Your task to perform on an android device: open app "ColorNote Notepad Notes" (install if not already installed), go to login, and select forgot password Image 0: 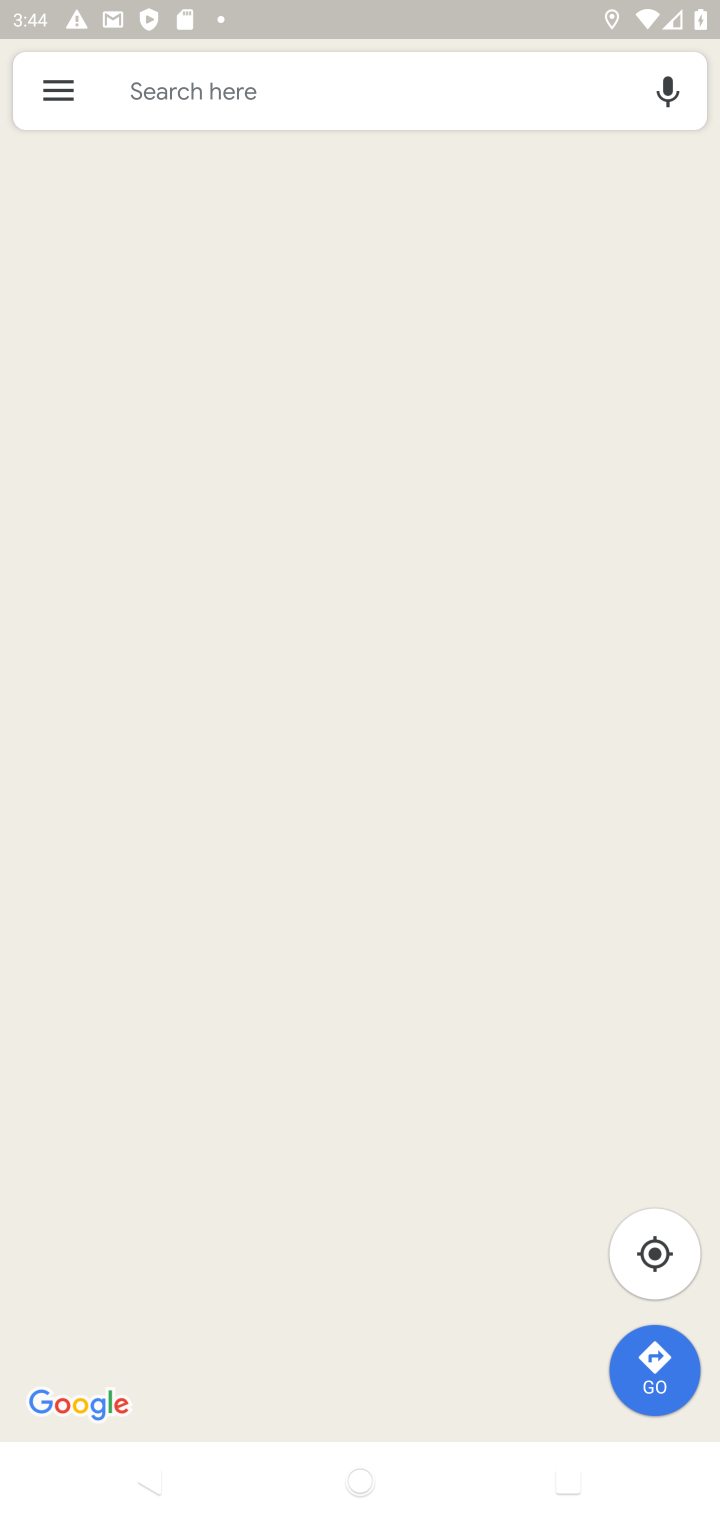
Step 0: press home button
Your task to perform on an android device: open app "ColorNote Notepad Notes" (install if not already installed), go to login, and select forgot password Image 1: 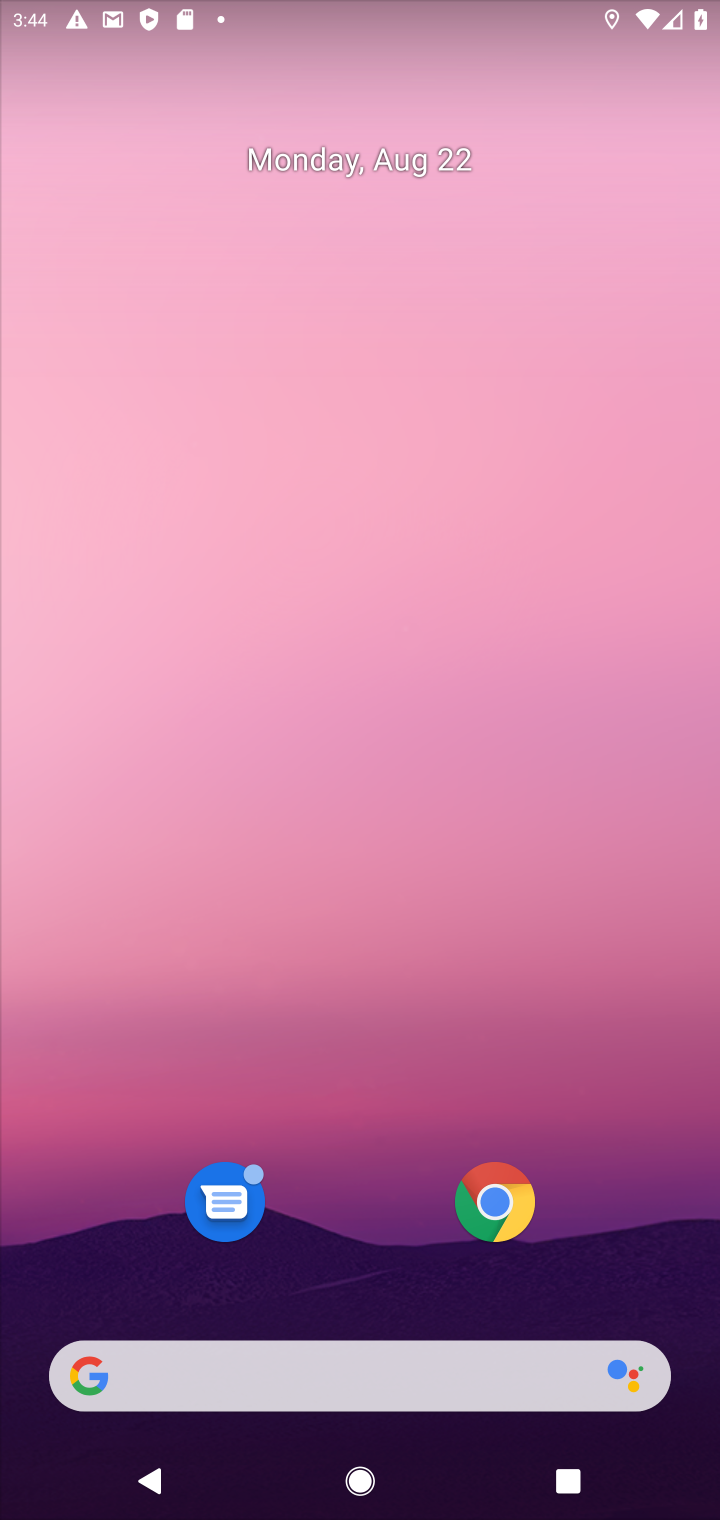
Step 1: drag from (383, 1351) to (312, 785)
Your task to perform on an android device: open app "ColorNote Notepad Notes" (install if not already installed), go to login, and select forgot password Image 2: 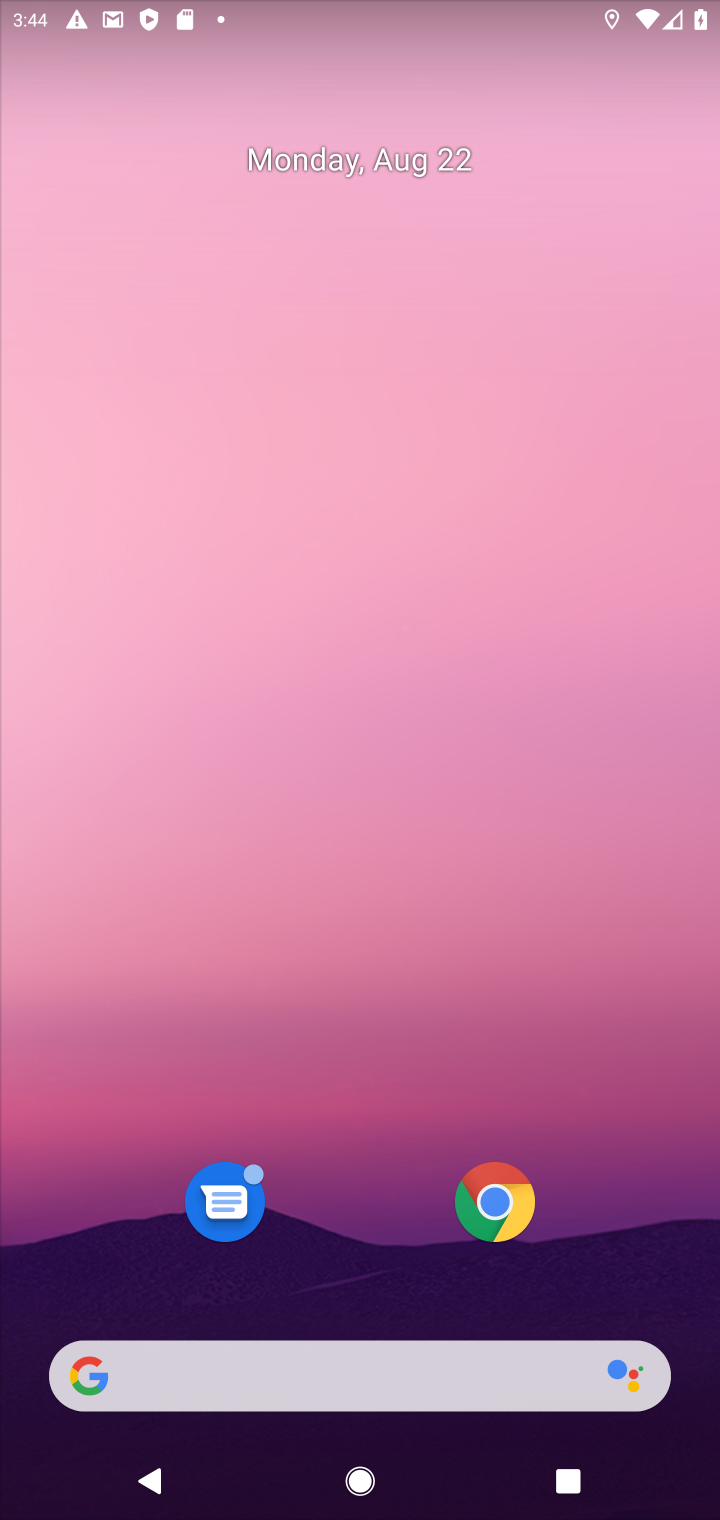
Step 2: drag from (234, 1088) to (228, 567)
Your task to perform on an android device: open app "ColorNote Notepad Notes" (install if not already installed), go to login, and select forgot password Image 3: 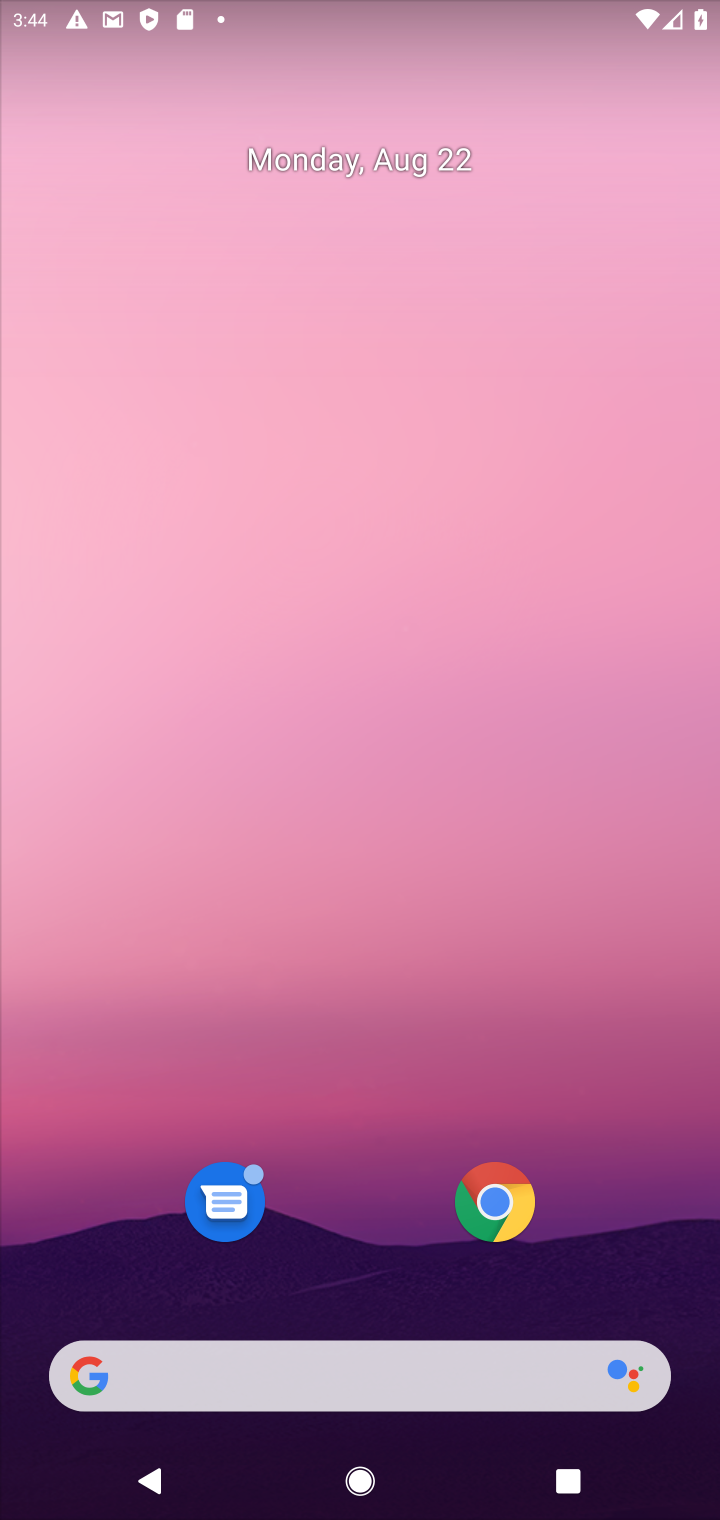
Step 3: drag from (375, 1306) to (496, 33)
Your task to perform on an android device: open app "ColorNote Notepad Notes" (install if not already installed), go to login, and select forgot password Image 4: 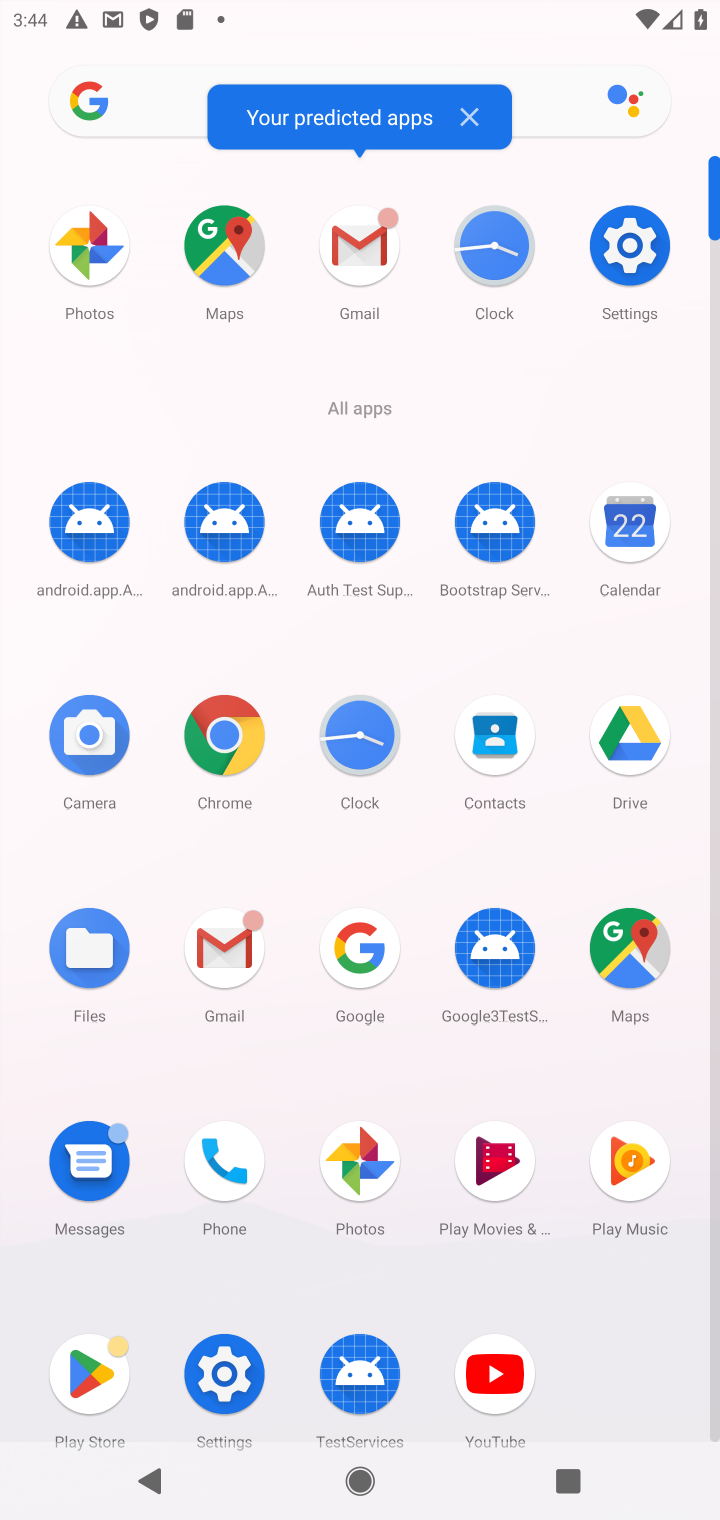
Step 4: click (82, 1394)
Your task to perform on an android device: open app "ColorNote Notepad Notes" (install if not already installed), go to login, and select forgot password Image 5: 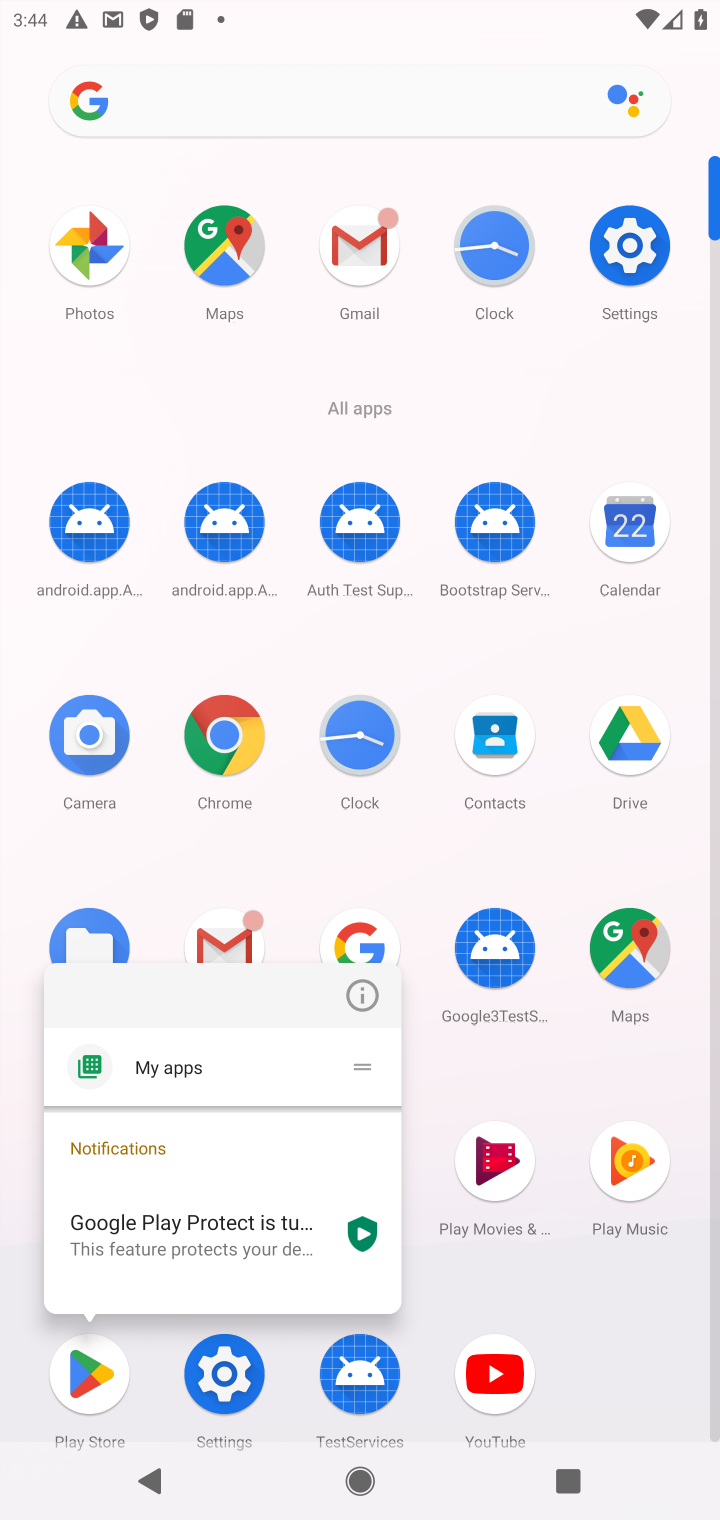
Step 5: click (80, 1392)
Your task to perform on an android device: open app "ColorNote Notepad Notes" (install if not already installed), go to login, and select forgot password Image 6: 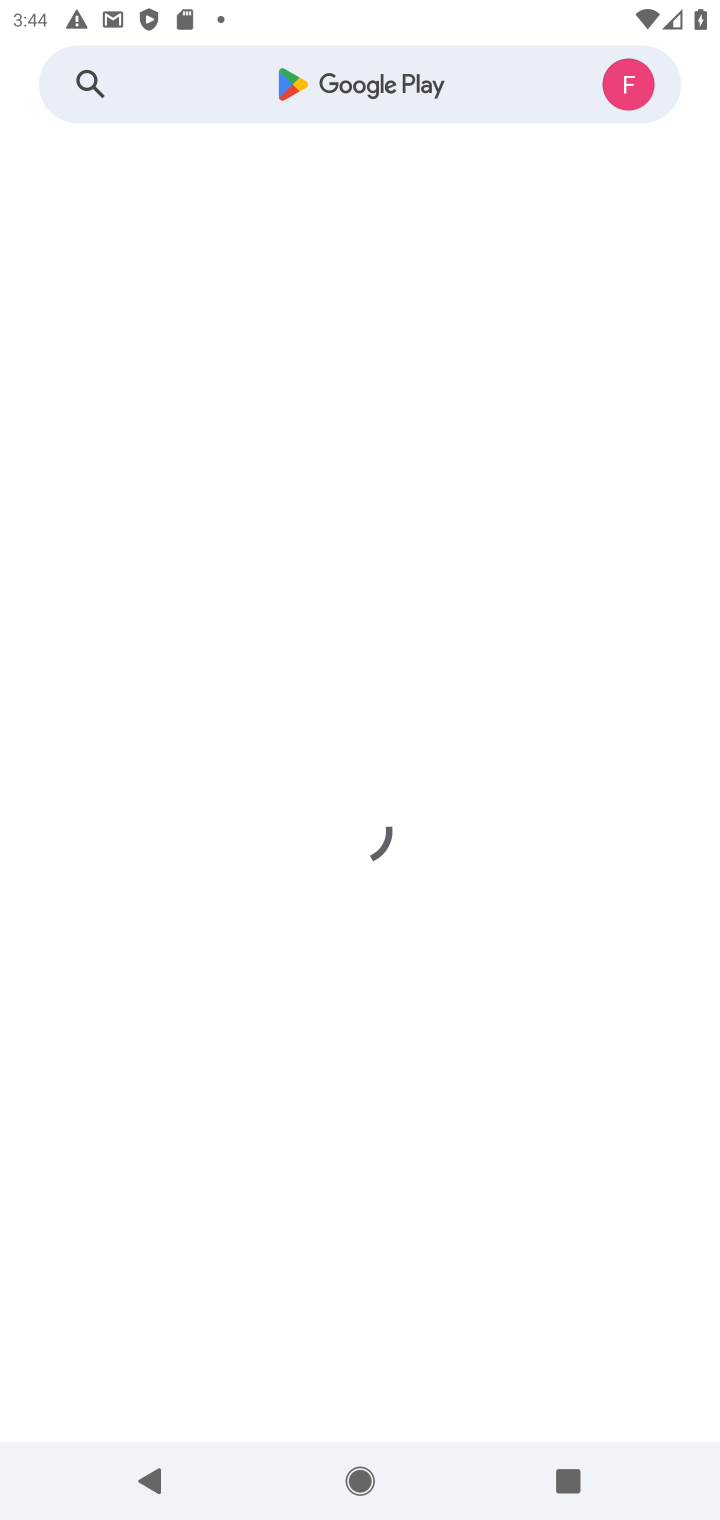
Step 6: click (251, 96)
Your task to perform on an android device: open app "ColorNote Notepad Notes" (install if not already installed), go to login, and select forgot password Image 7: 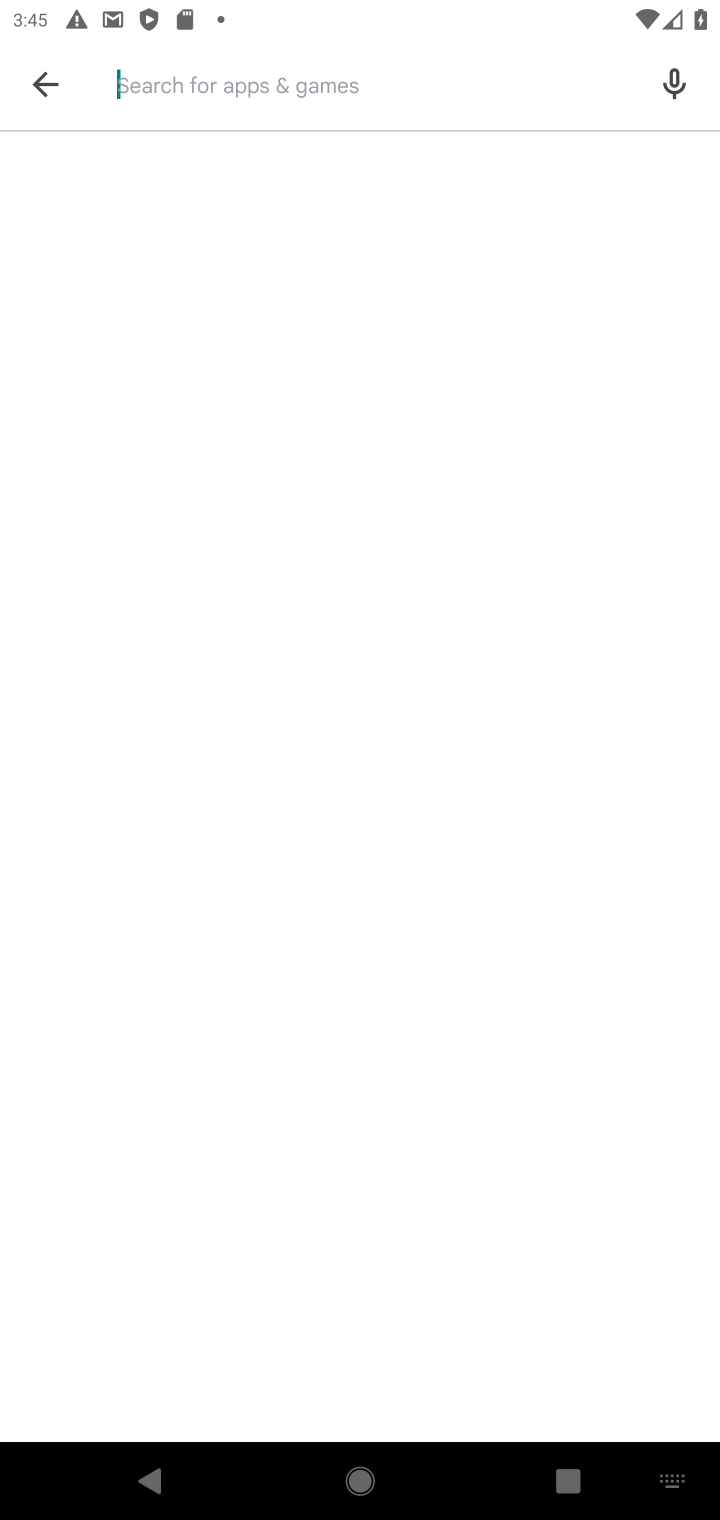
Step 7: type "colornote notepad"
Your task to perform on an android device: open app "ColorNote Notepad Notes" (install if not already installed), go to login, and select forgot password Image 8: 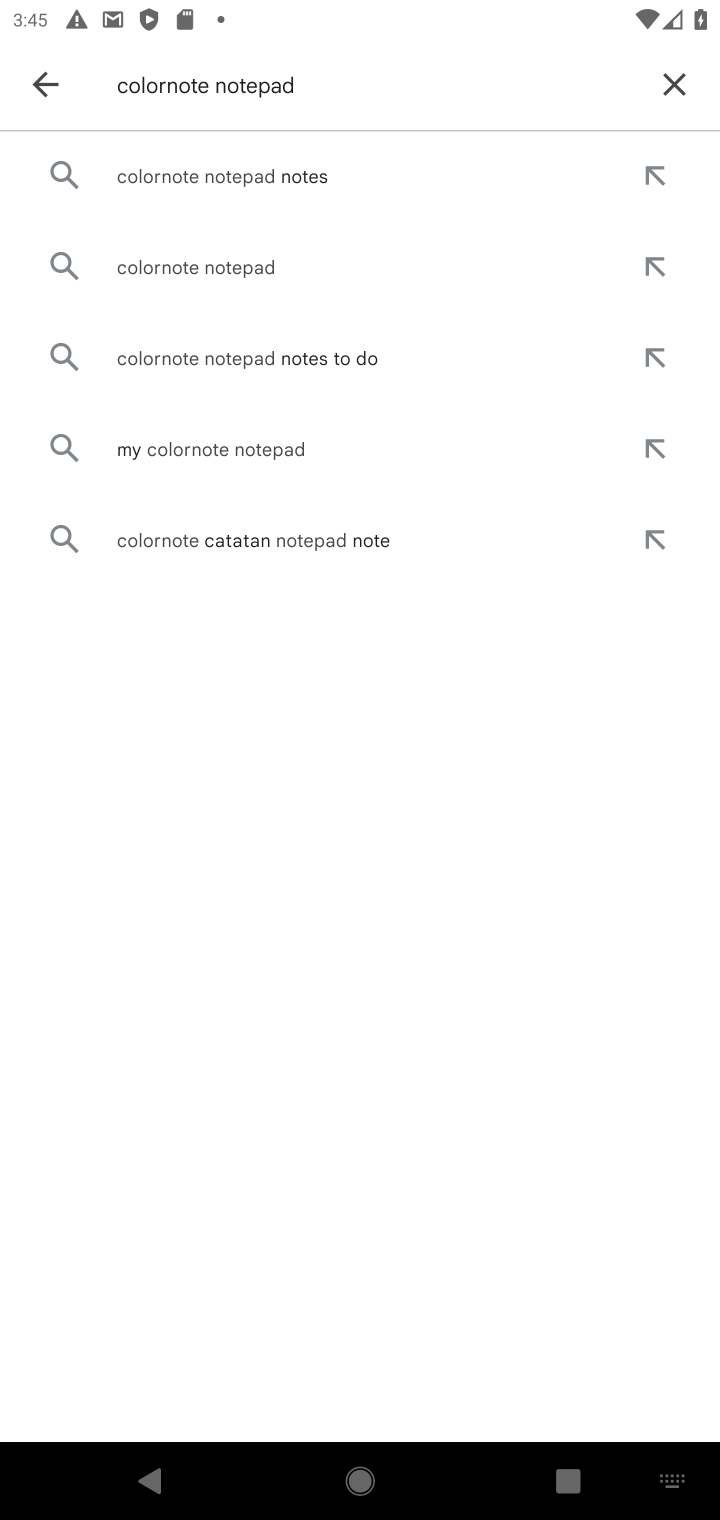
Step 8: click (208, 193)
Your task to perform on an android device: open app "ColorNote Notepad Notes" (install if not already installed), go to login, and select forgot password Image 9: 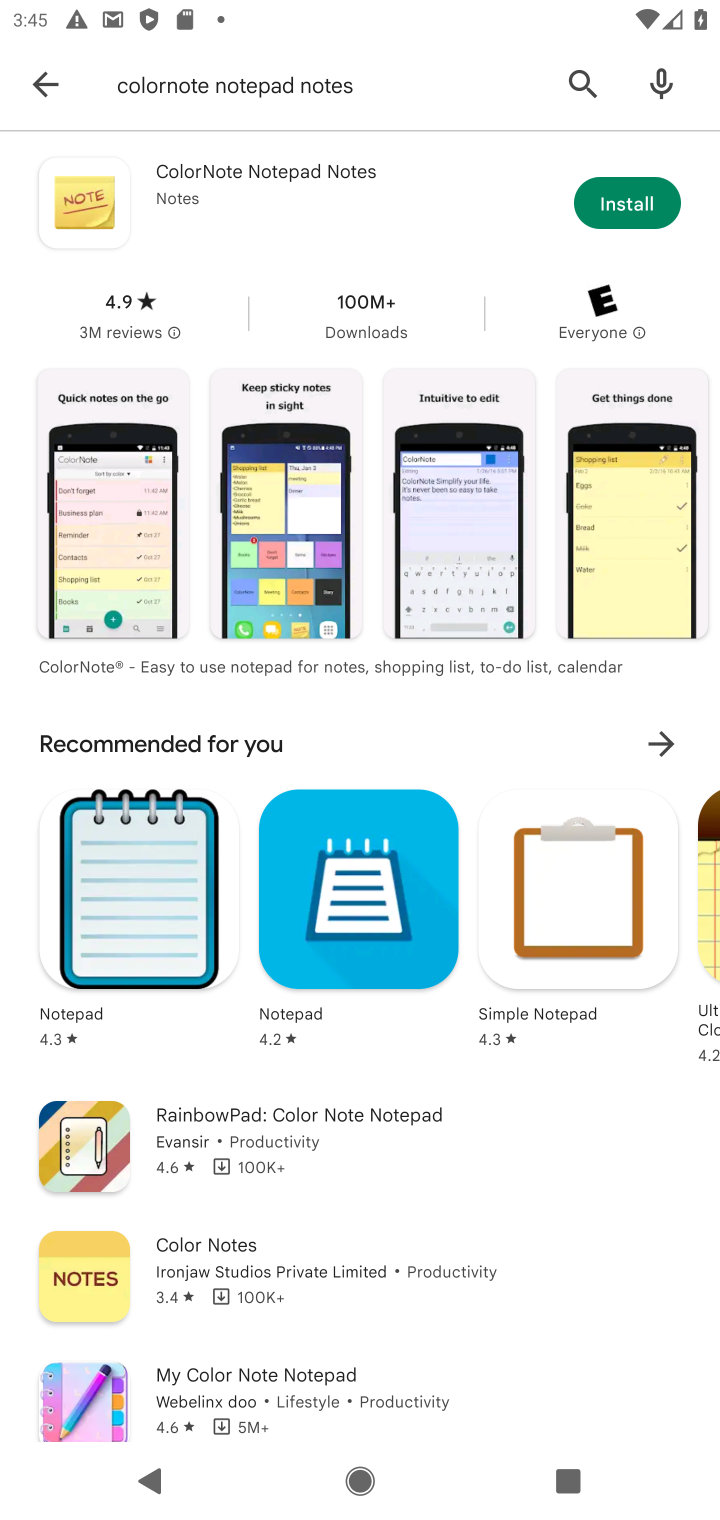
Step 9: click (636, 221)
Your task to perform on an android device: open app "ColorNote Notepad Notes" (install if not already installed), go to login, and select forgot password Image 10: 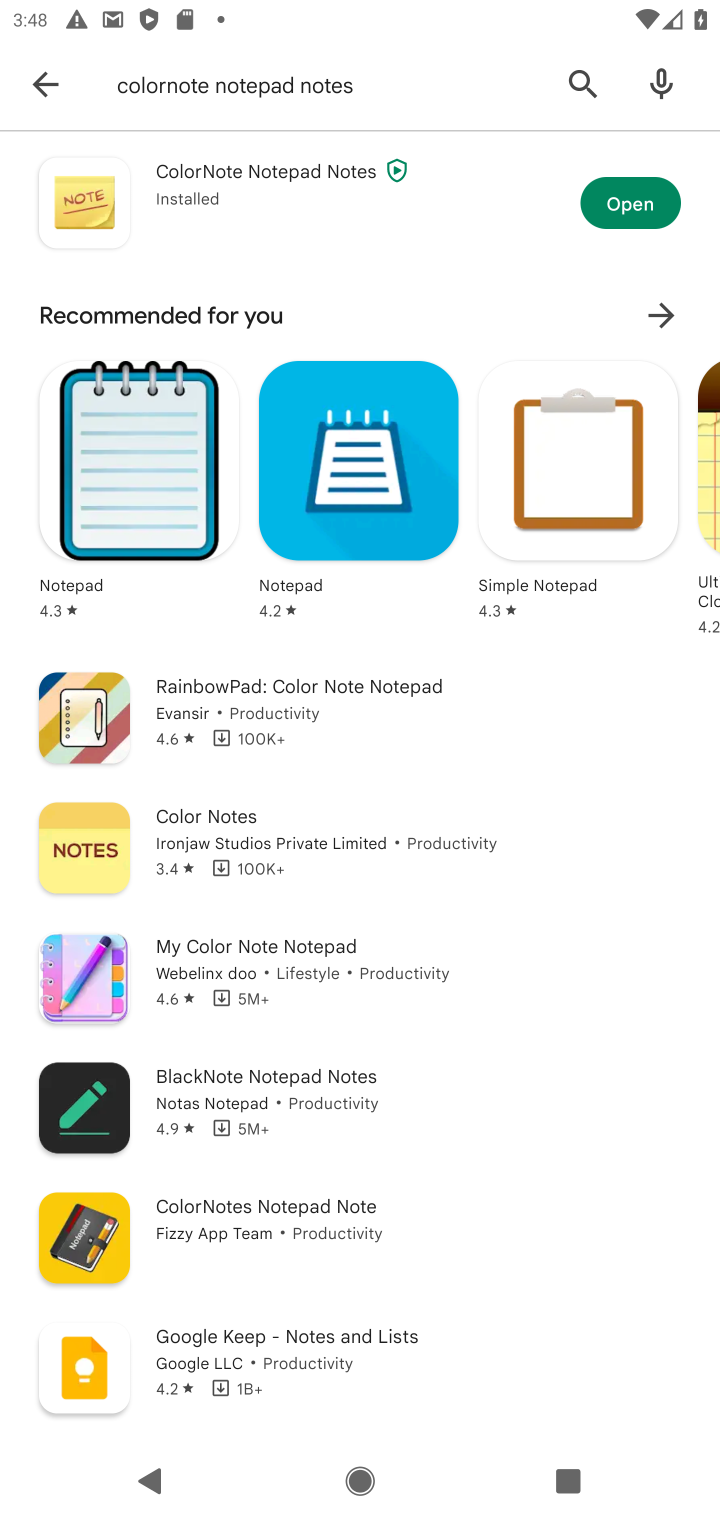
Step 10: click (636, 207)
Your task to perform on an android device: open app "ColorNote Notepad Notes" (install if not already installed), go to login, and select forgot password Image 11: 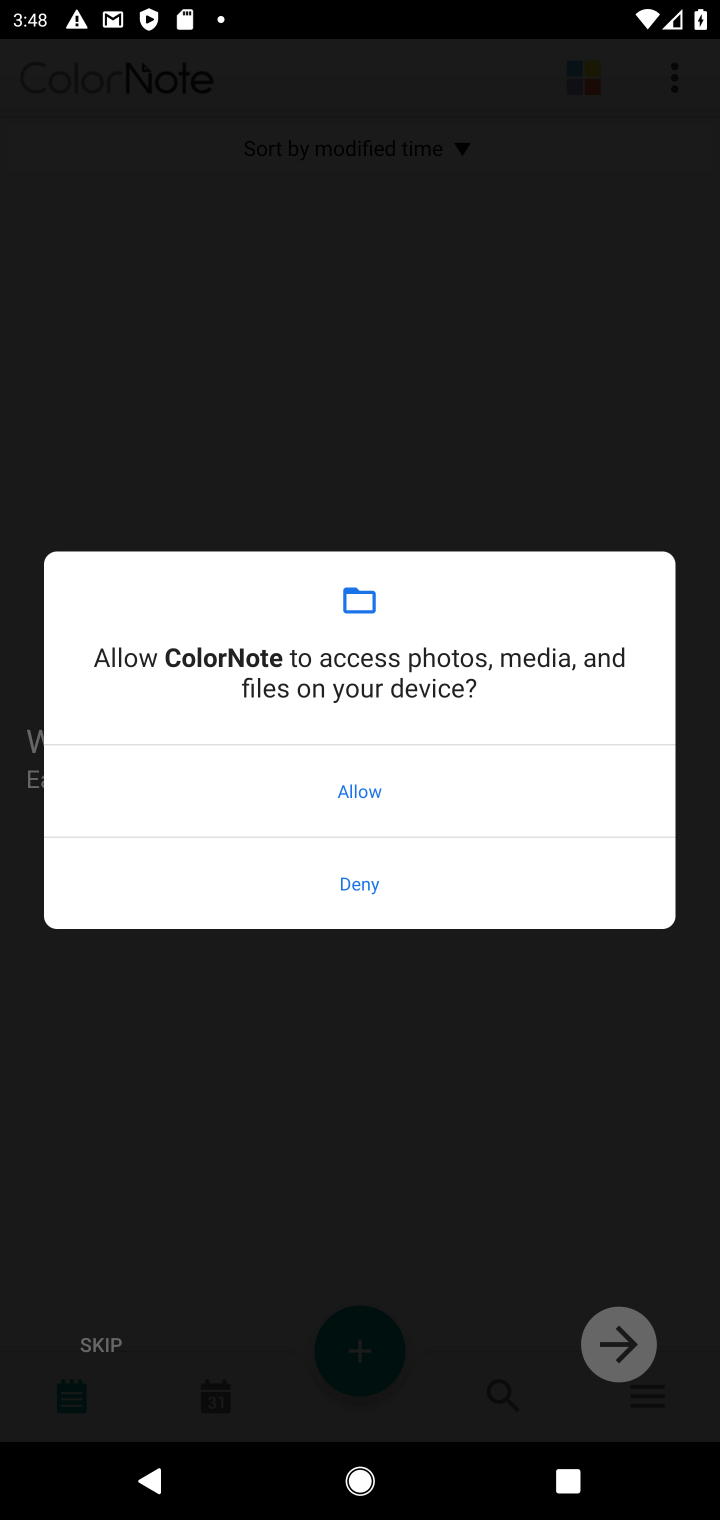
Step 11: click (640, 1336)
Your task to perform on an android device: open app "ColorNote Notepad Notes" (install if not already installed), go to login, and select forgot password Image 12: 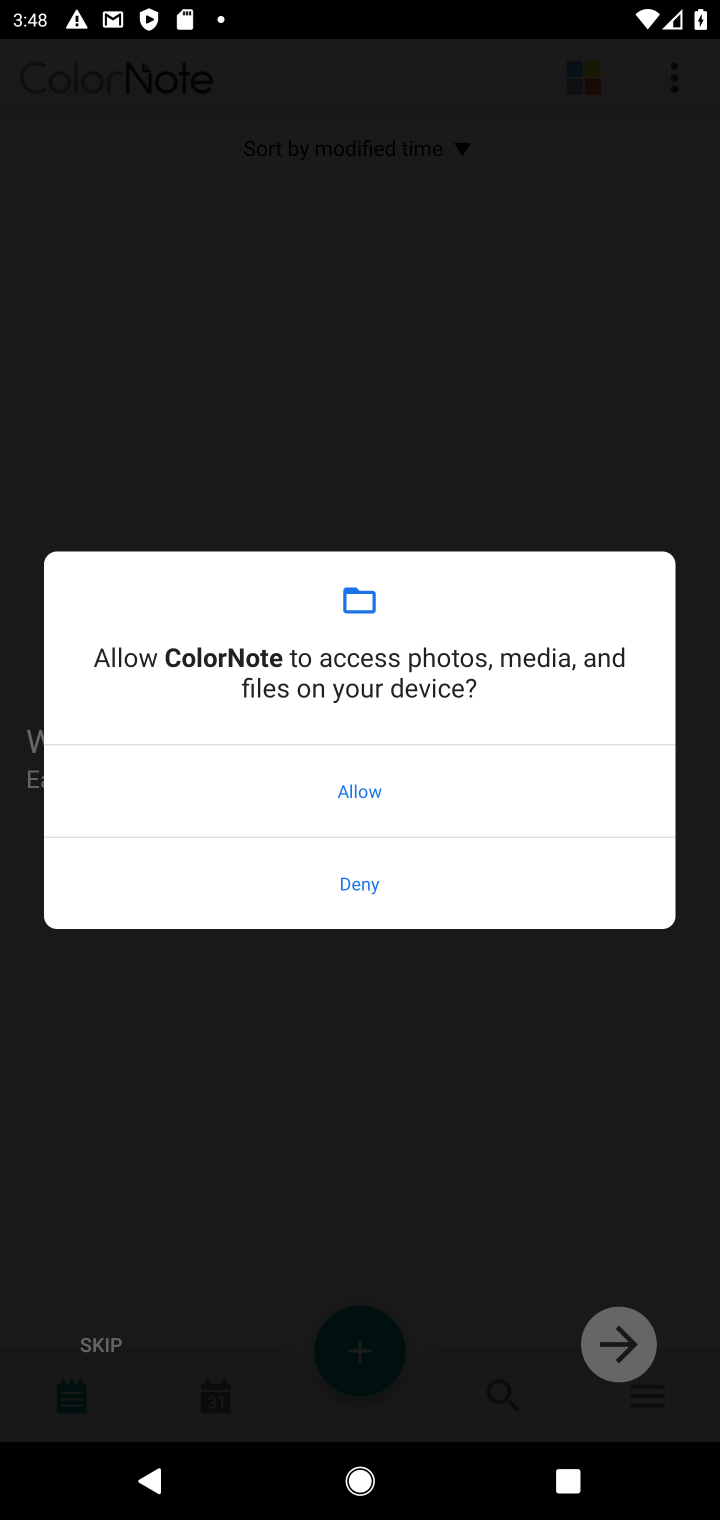
Step 12: click (405, 802)
Your task to perform on an android device: open app "ColorNote Notepad Notes" (install if not already installed), go to login, and select forgot password Image 13: 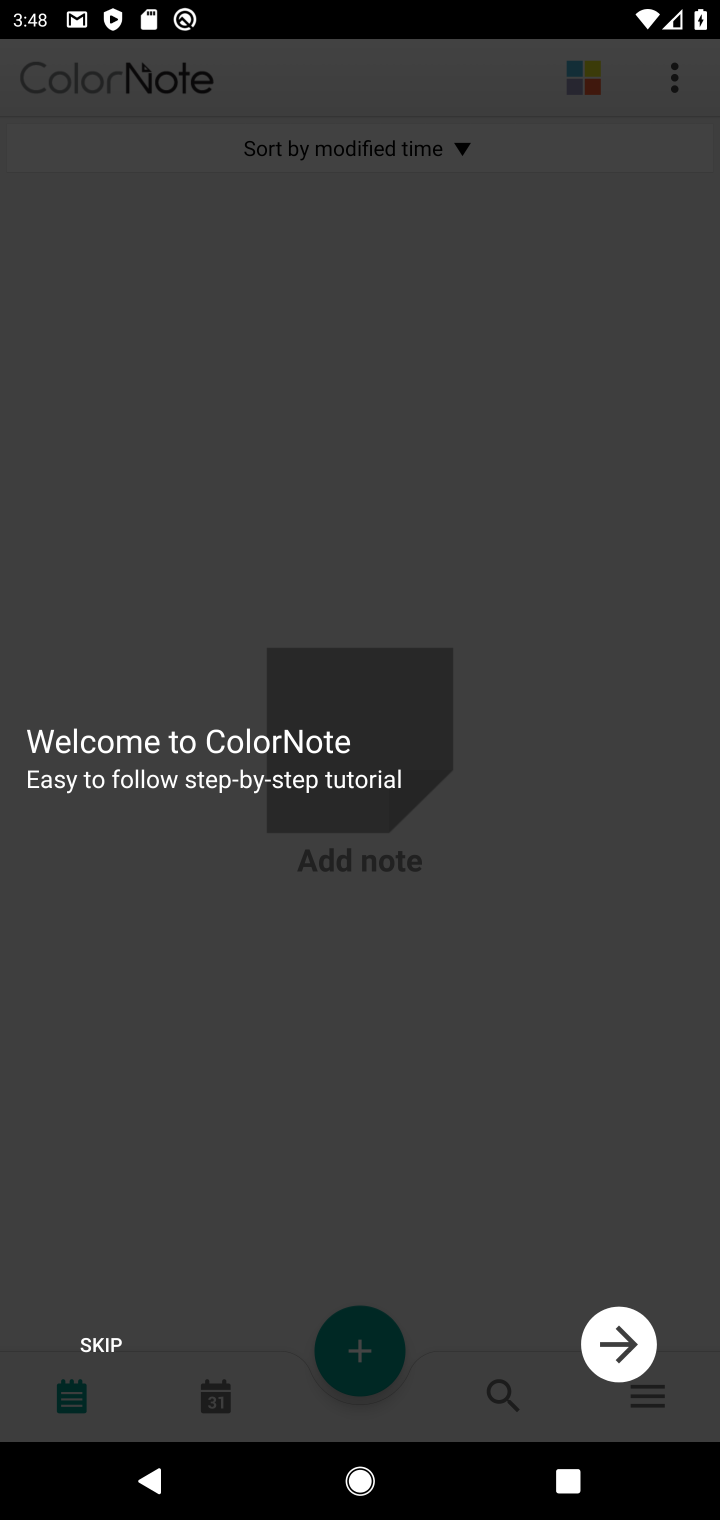
Step 13: click (634, 1333)
Your task to perform on an android device: open app "ColorNote Notepad Notes" (install if not already installed), go to login, and select forgot password Image 14: 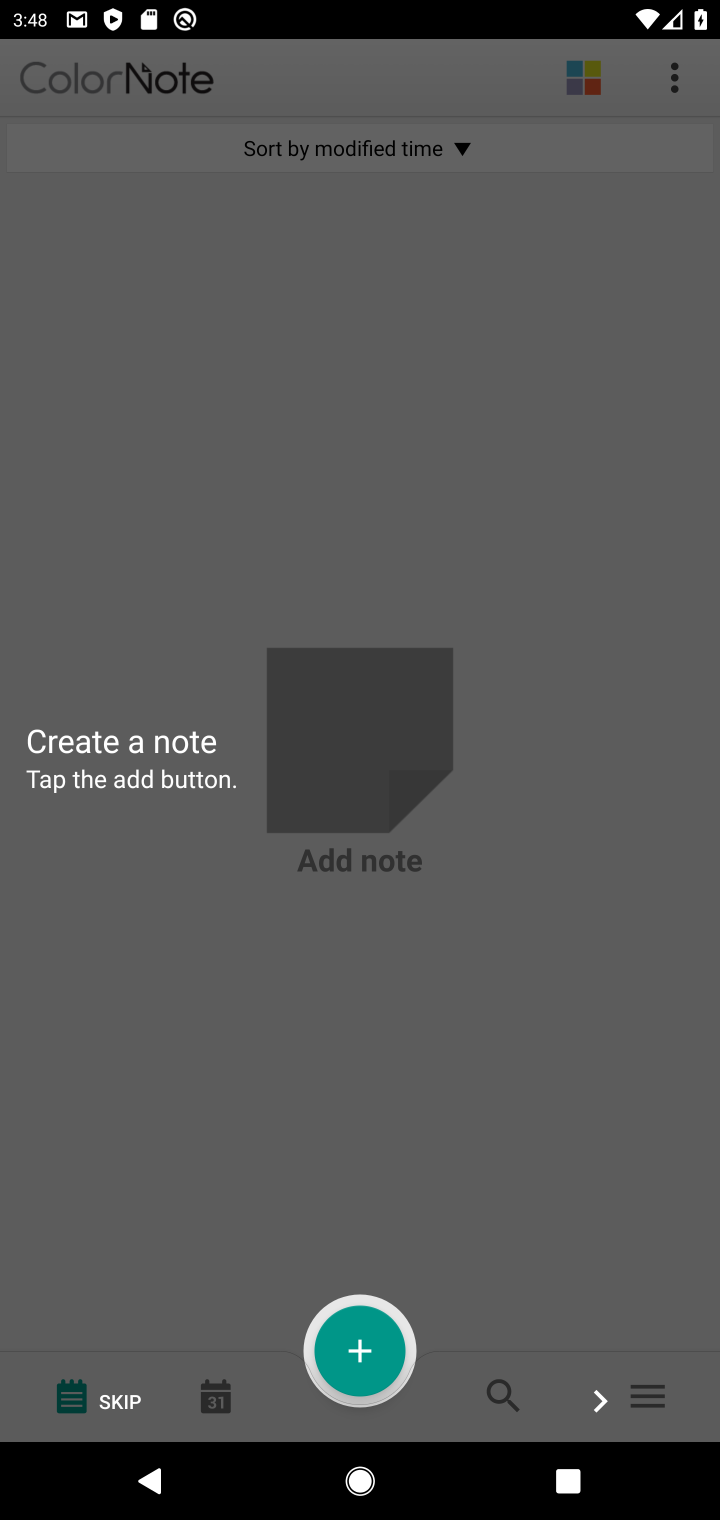
Step 14: click (602, 1400)
Your task to perform on an android device: open app "ColorNote Notepad Notes" (install if not already installed), go to login, and select forgot password Image 15: 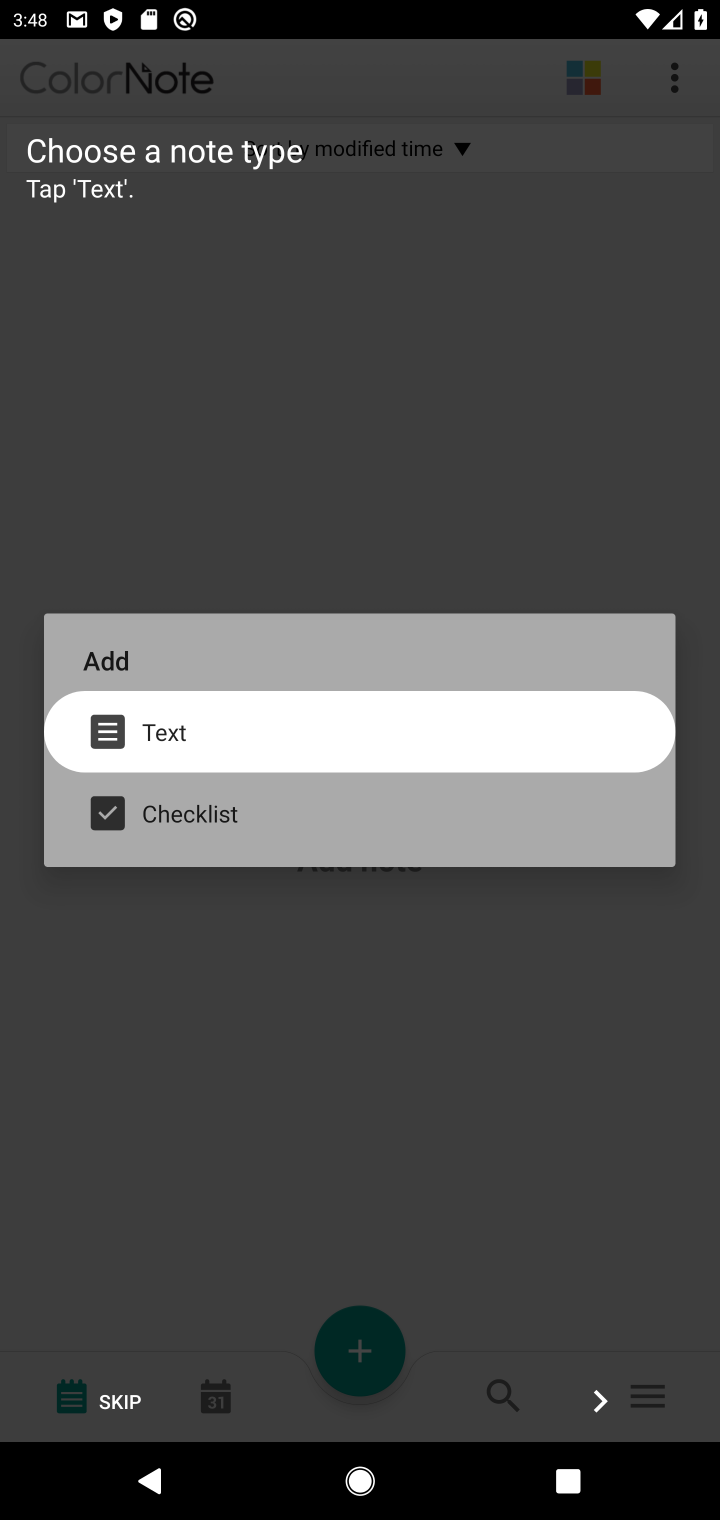
Step 15: click (126, 1395)
Your task to perform on an android device: open app "ColorNote Notepad Notes" (install if not already installed), go to login, and select forgot password Image 16: 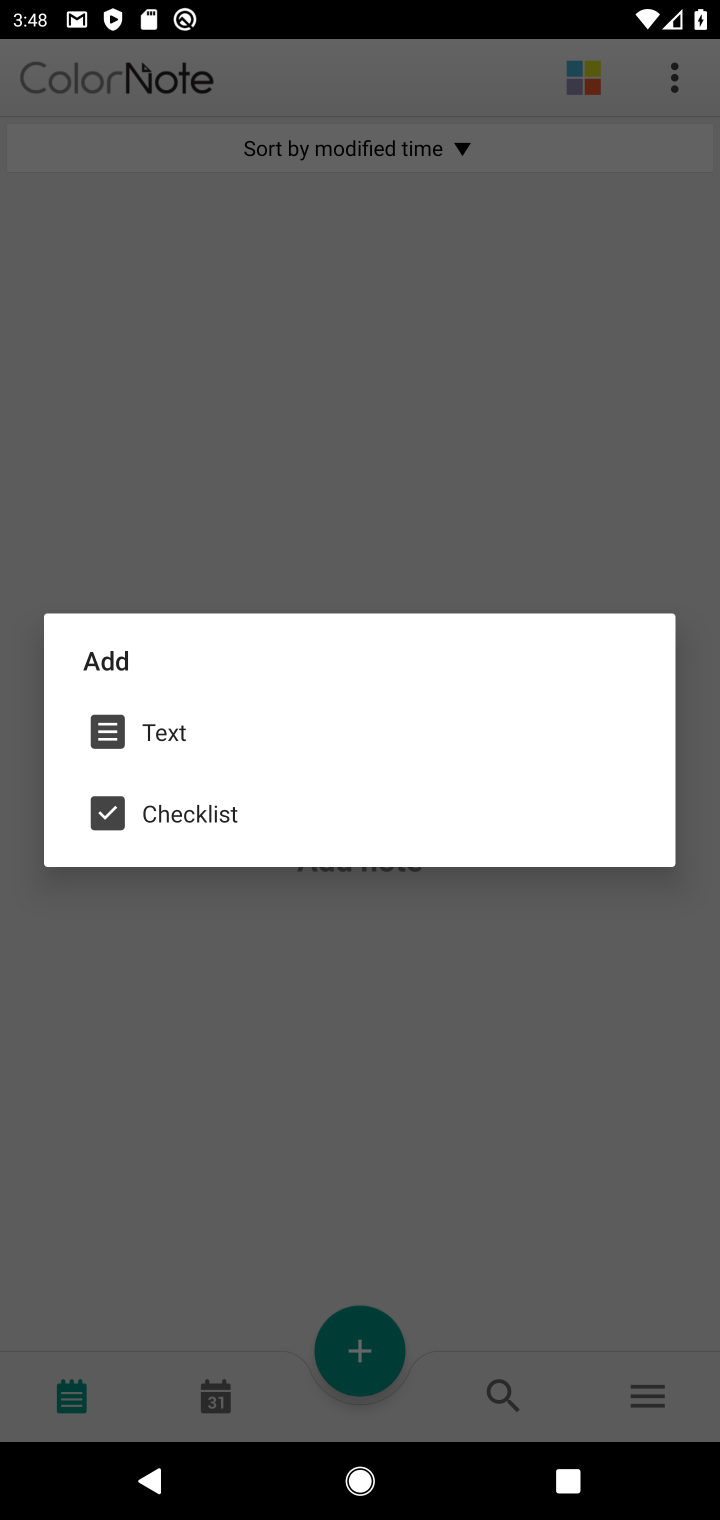
Step 16: click (180, 739)
Your task to perform on an android device: open app "ColorNote Notepad Notes" (install if not already installed), go to login, and select forgot password Image 17: 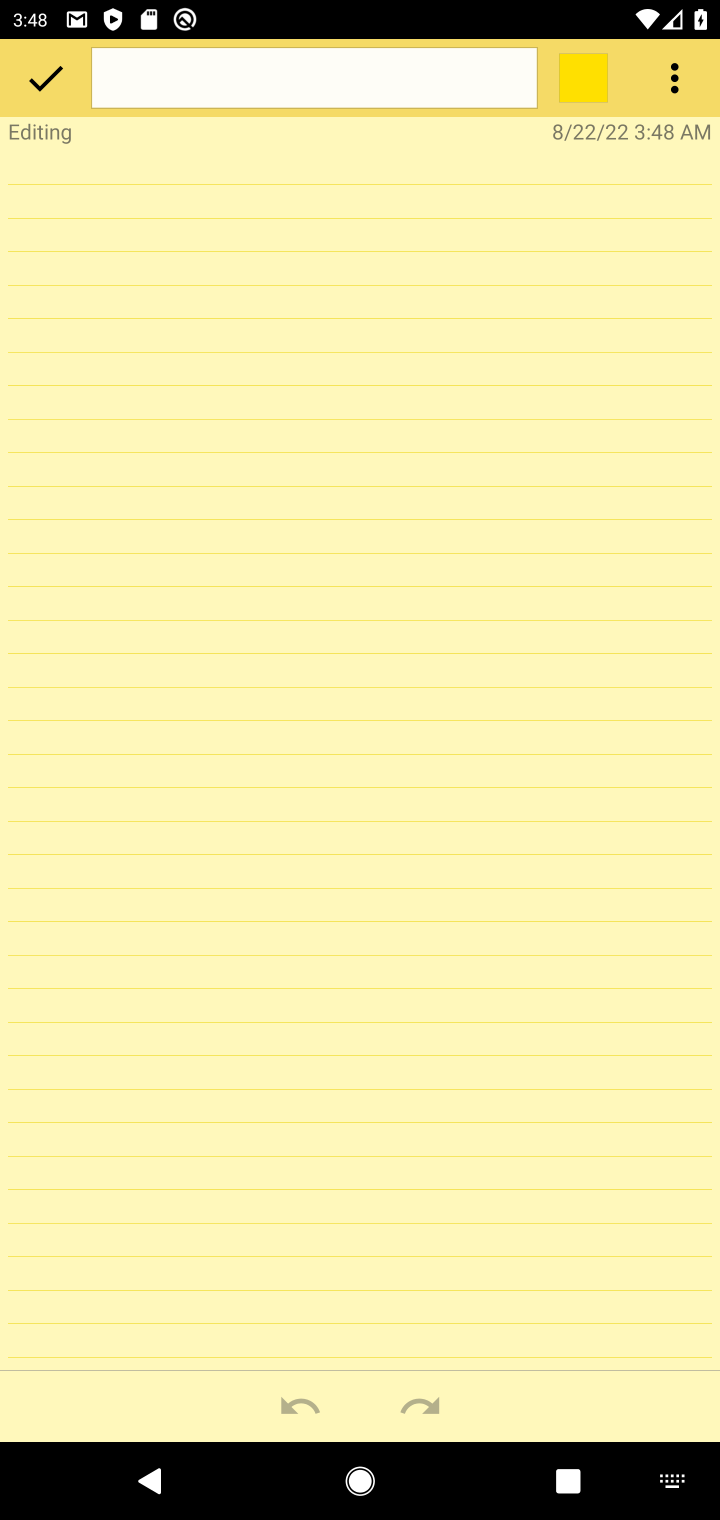
Step 17: click (671, 88)
Your task to perform on an android device: open app "ColorNote Notepad Notes" (install if not already installed), go to login, and select forgot password Image 18: 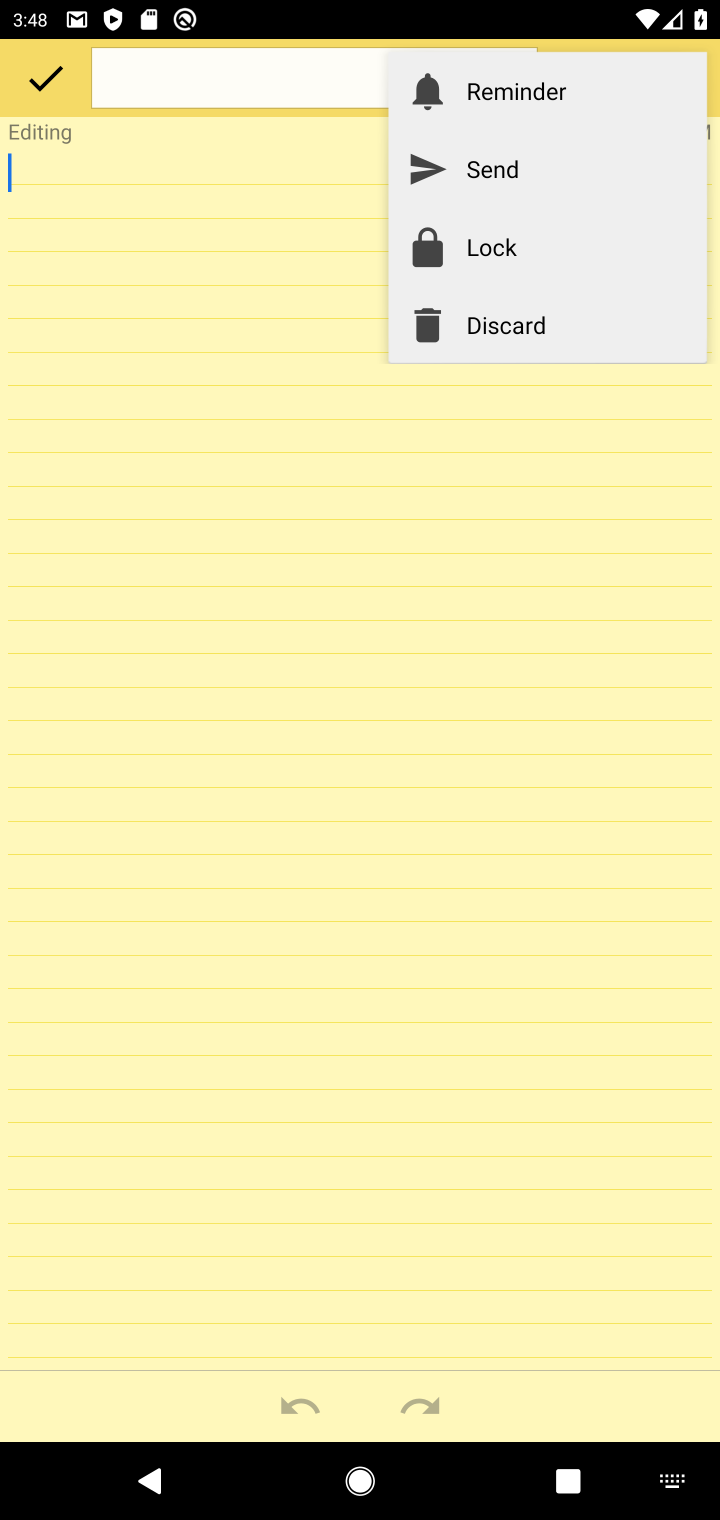
Step 18: task complete